Your task to perform on an android device: What's the weather going to be this weekend? Image 0: 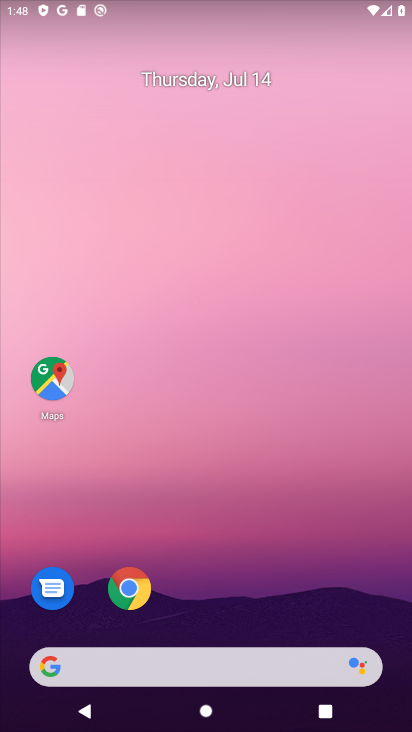
Step 0: drag from (207, 590) to (247, 94)
Your task to perform on an android device: What's the weather going to be this weekend? Image 1: 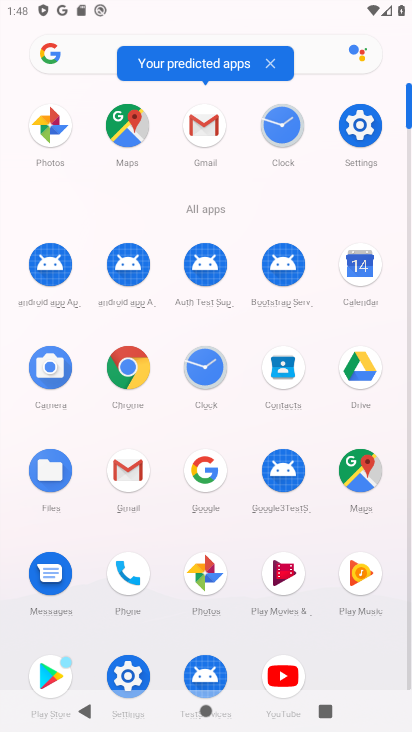
Step 1: click (216, 472)
Your task to perform on an android device: What's the weather going to be this weekend? Image 2: 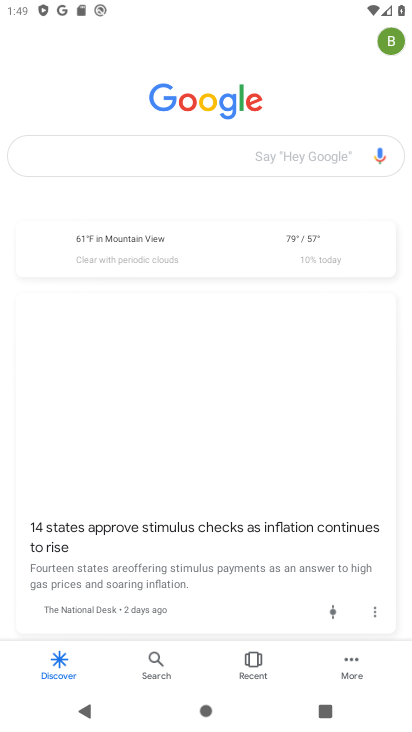
Step 2: click (206, 157)
Your task to perform on an android device: What's the weather going to be this weekend? Image 3: 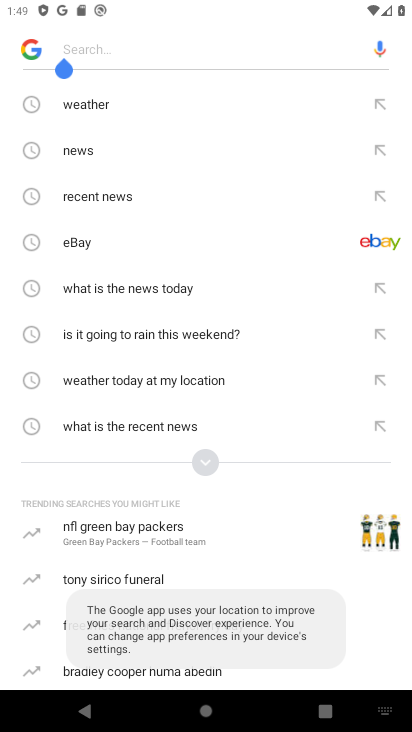
Step 3: type "What's the weather going to be this weekend?"
Your task to perform on an android device: What's the weather going to be this weekend? Image 4: 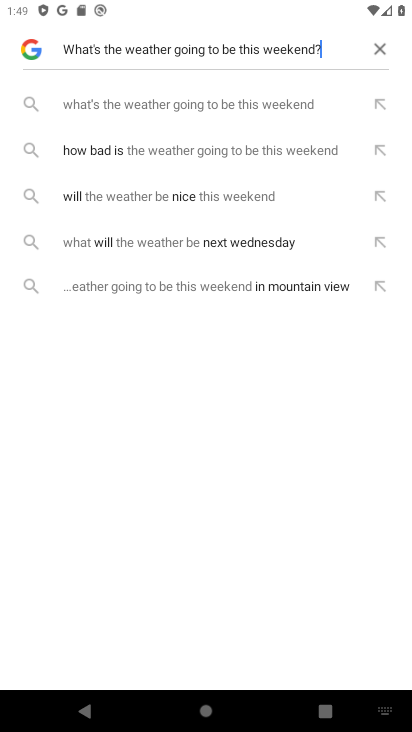
Step 4: click (174, 108)
Your task to perform on an android device: What's the weather going to be this weekend? Image 5: 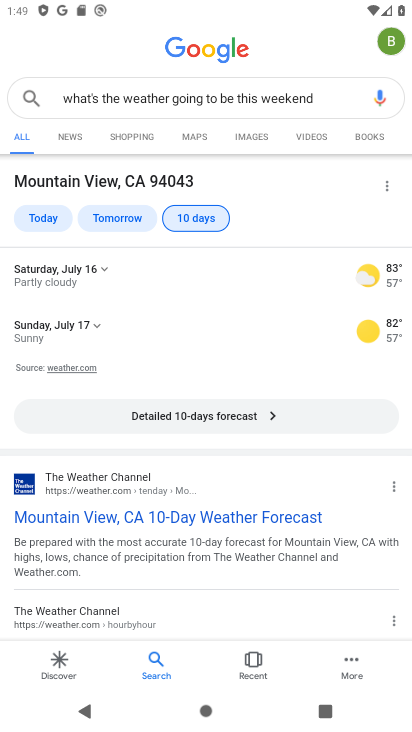
Step 5: task complete